Your task to perform on an android device: What's the weather? Image 0: 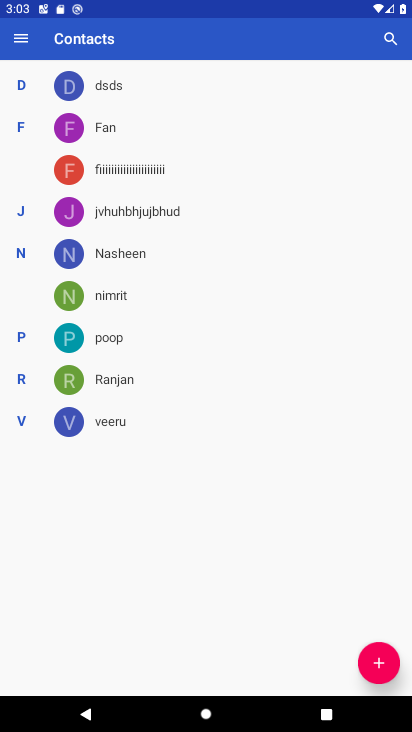
Step 0: press home button
Your task to perform on an android device: What's the weather? Image 1: 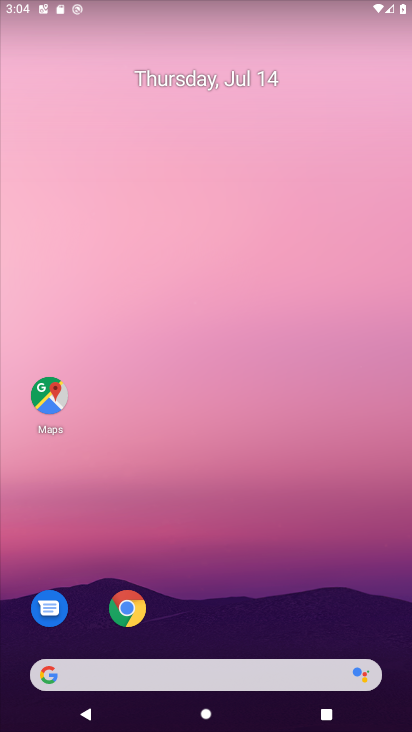
Step 1: drag from (209, 703) to (245, 5)
Your task to perform on an android device: What's the weather? Image 2: 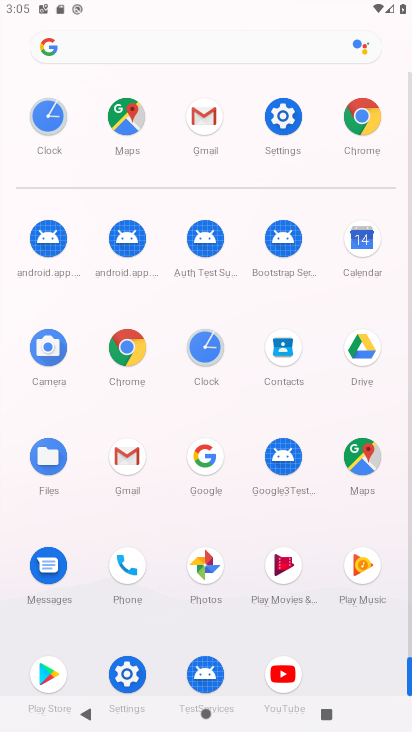
Step 2: click (361, 124)
Your task to perform on an android device: What's the weather? Image 3: 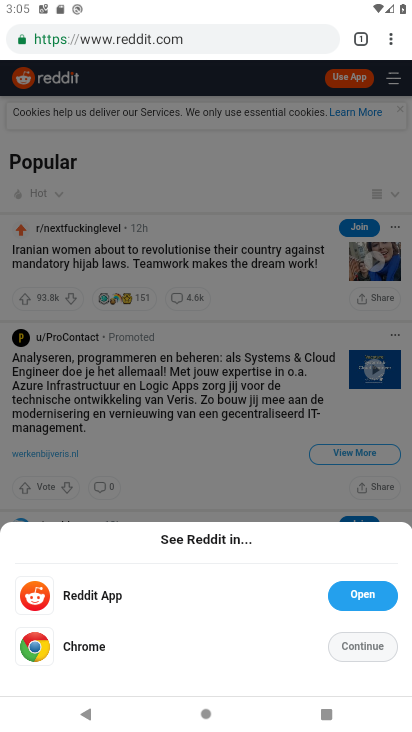
Step 3: click (104, 44)
Your task to perform on an android device: What's the weather? Image 4: 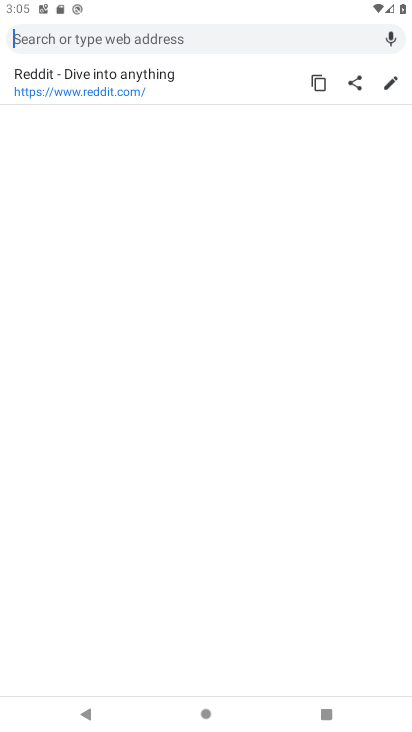
Step 4: click (100, 44)
Your task to perform on an android device: What's the weather? Image 5: 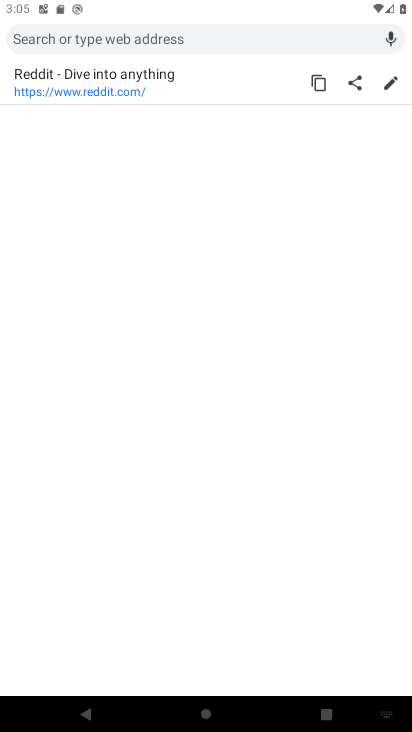
Step 5: click (103, 44)
Your task to perform on an android device: What's the weather? Image 6: 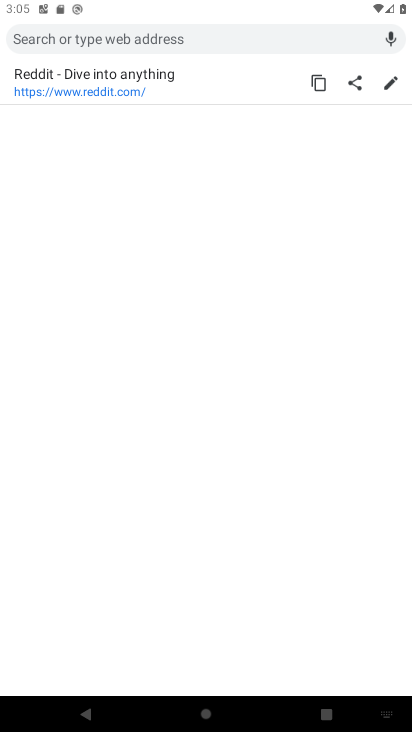
Step 6: type "What's the weather?"
Your task to perform on an android device: What's the weather? Image 7: 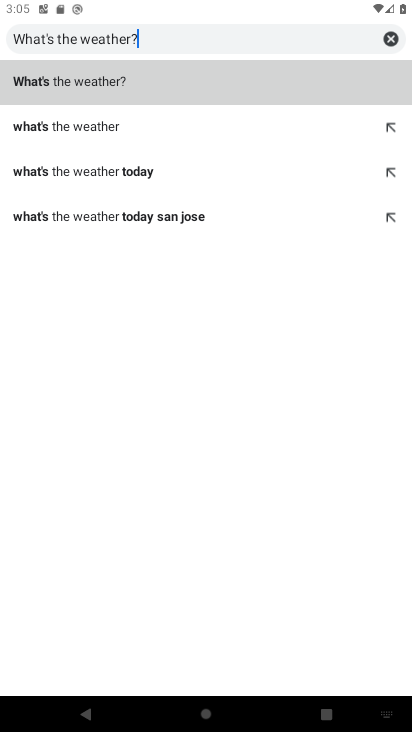
Step 7: type ""
Your task to perform on an android device: What's the weather? Image 8: 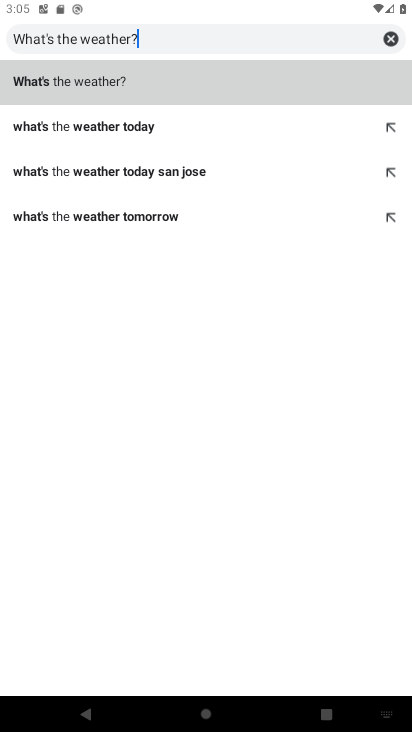
Step 8: click (71, 85)
Your task to perform on an android device: What's the weather? Image 9: 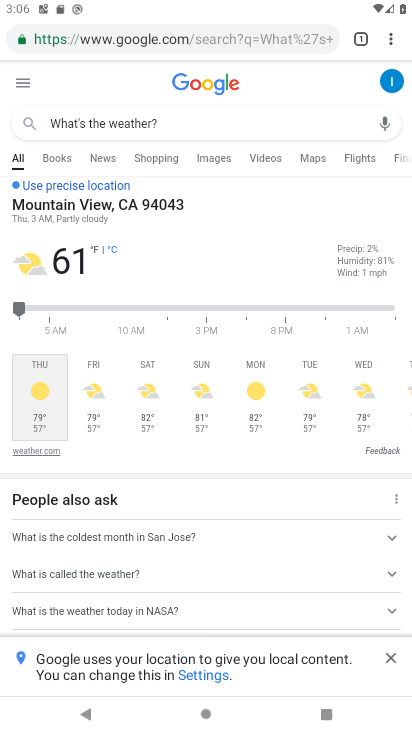
Step 9: task complete